Your task to perform on an android device: change notification settings in the gmail app Image 0: 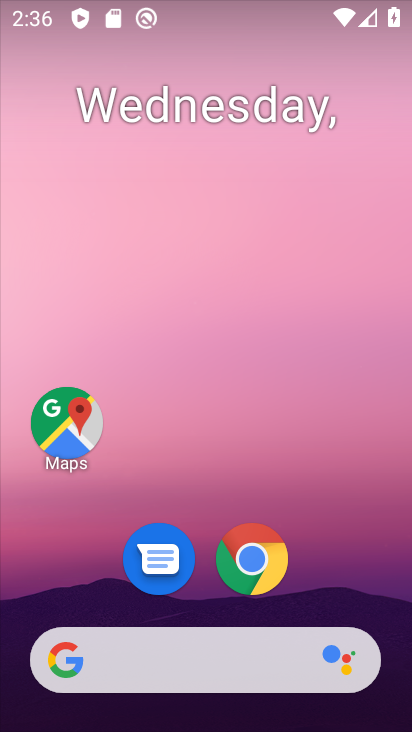
Step 0: drag from (264, 703) to (257, 239)
Your task to perform on an android device: change notification settings in the gmail app Image 1: 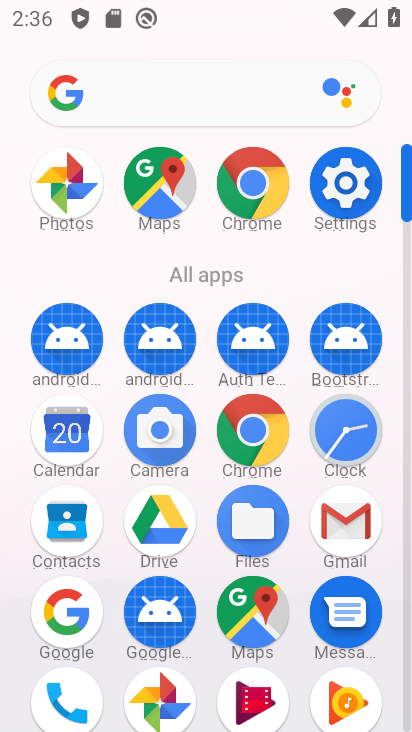
Step 1: click (329, 518)
Your task to perform on an android device: change notification settings in the gmail app Image 2: 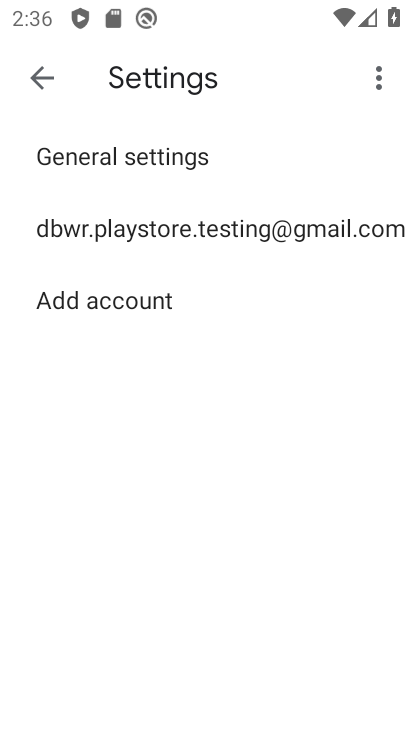
Step 2: click (94, 228)
Your task to perform on an android device: change notification settings in the gmail app Image 3: 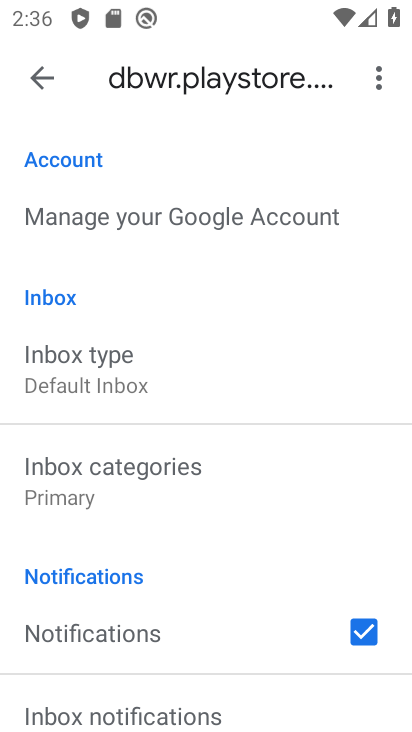
Step 3: click (81, 619)
Your task to perform on an android device: change notification settings in the gmail app Image 4: 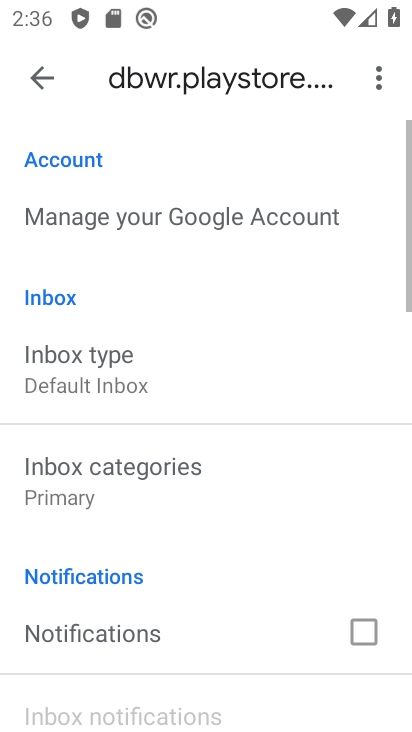
Step 4: task complete